Your task to perform on an android device: Go to internet settings Image 0: 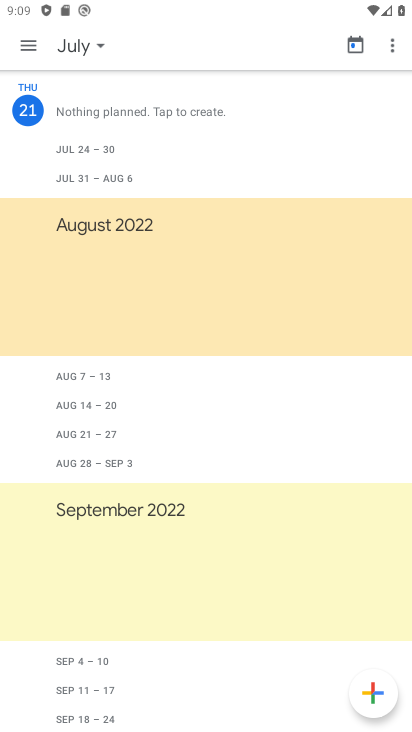
Step 0: press home button
Your task to perform on an android device: Go to internet settings Image 1: 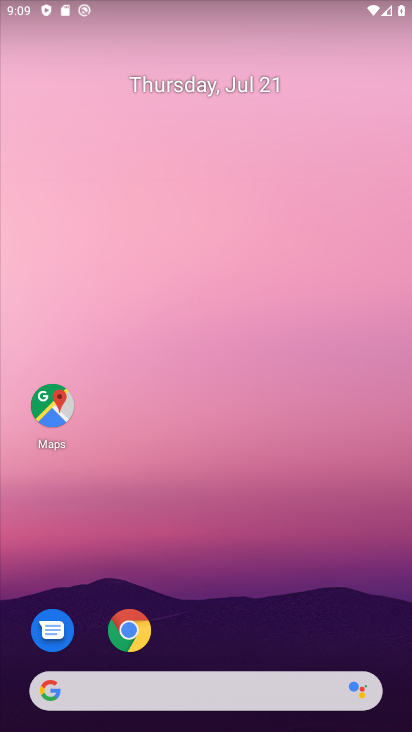
Step 1: drag from (228, 723) to (191, 229)
Your task to perform on an android device: Go to internet settings Image 2: 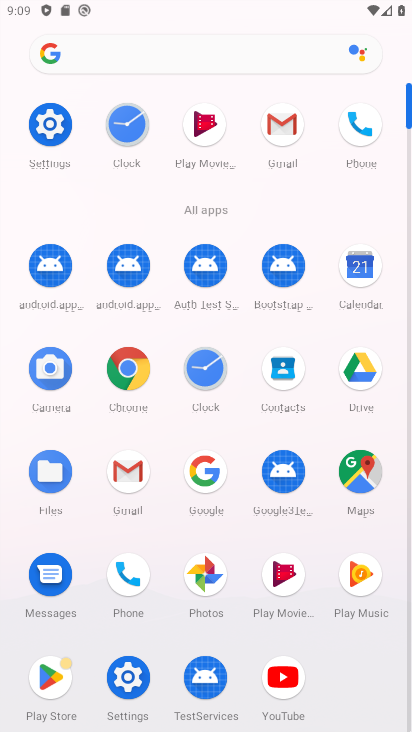
Step 2: click (57, 115)
Your task to perform on an android device: Go to internet settings Image 3: 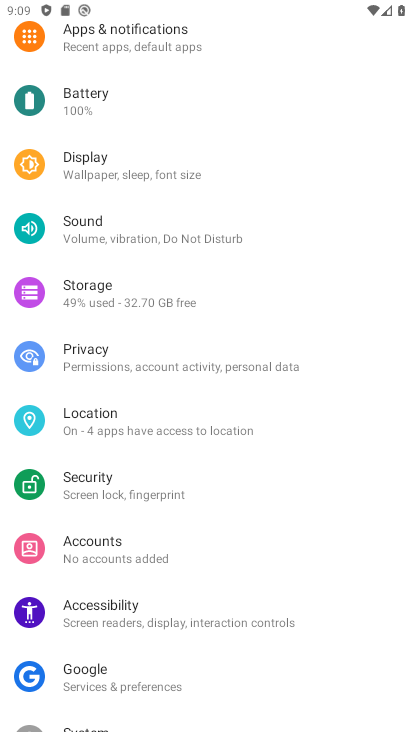
Step 3: drag from (149, 121) to (193, 537)
Your task to perform on an android device: Go to internet settings Image 4: 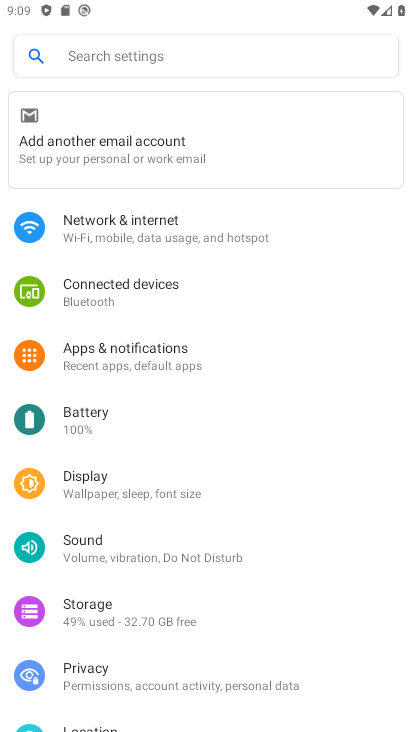
Step 4: click (121, 237)
Your task to perform on an android device: Go to internet settings Image 5: 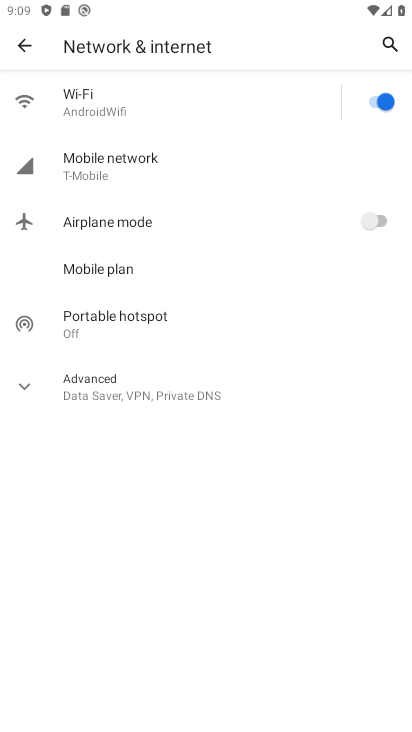
Step 5: task complete